Your task to perform on an android device: What is the recent news? Image 0: 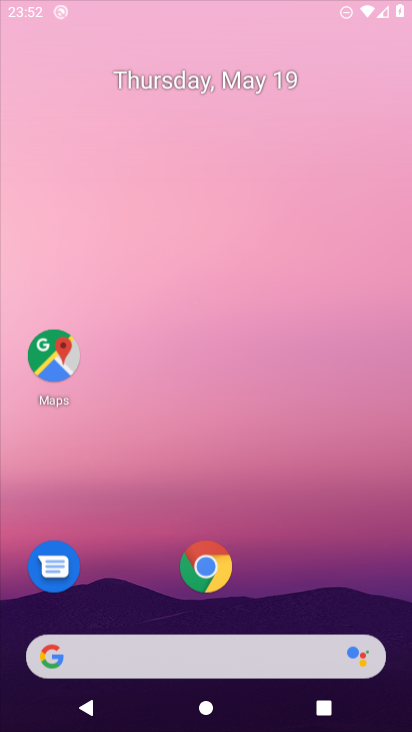
Step 0: press home button
Your task to perform on an android device: What is the recent news? Image 1: 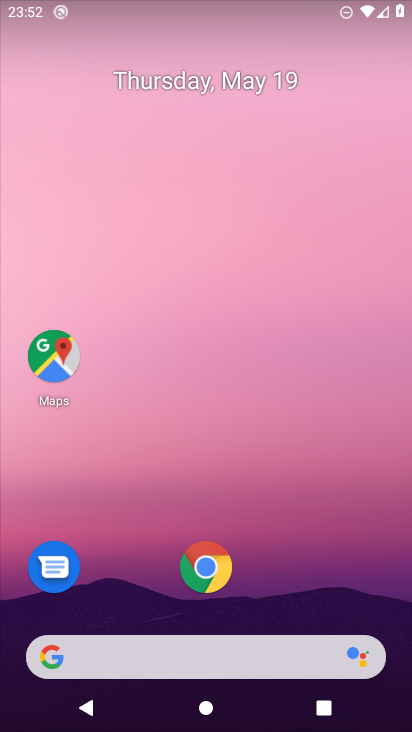
Step 1: task complete